Your task to perform on an android device: Turn on the flashlight Image 0: 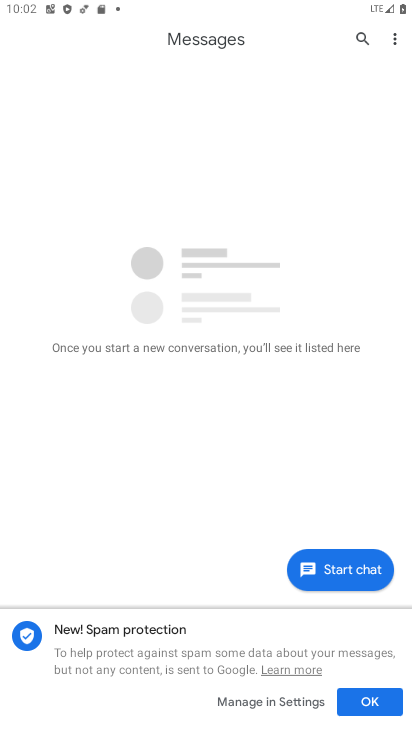
Step 0: press home button
Your task to perform on an android device: Turn on the flashlight Image 1: 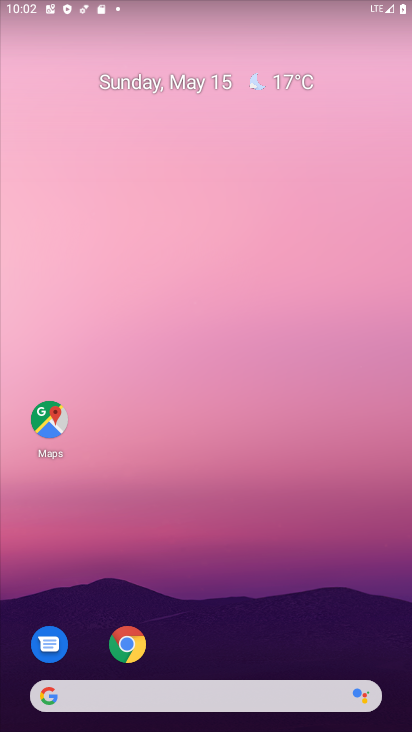
Step 1: drag from (283, 624) to (276, 87)
Your task to perform on an android device: Turn on the flashlight Image 2: 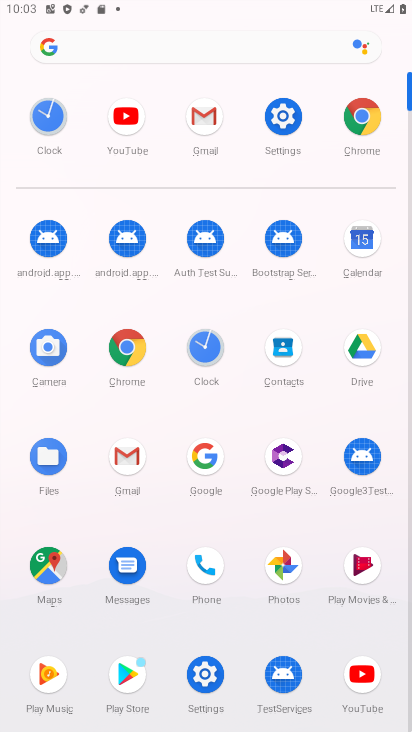
Step 2: click (284, 132)
Your task to perform on an android device: Turn on the flashlight Image 3: 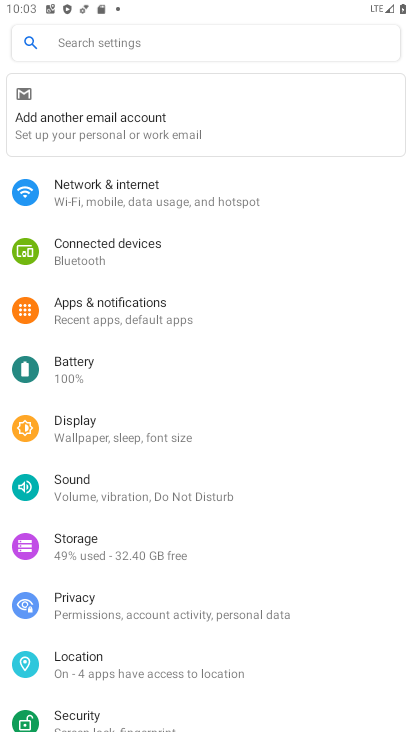
Step 3: click (122, 37)
Your task to perform on an android device: Turn on the flashlight Image 4: 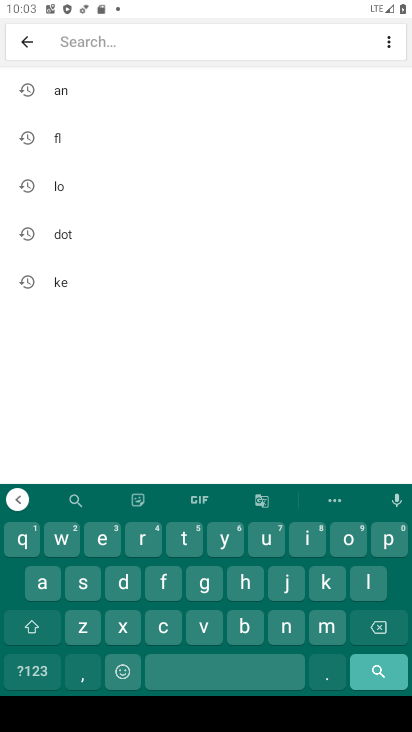
Step 4: click (154, 586)
Your task to perform on an android device: Turn on the flashlight Image 5: 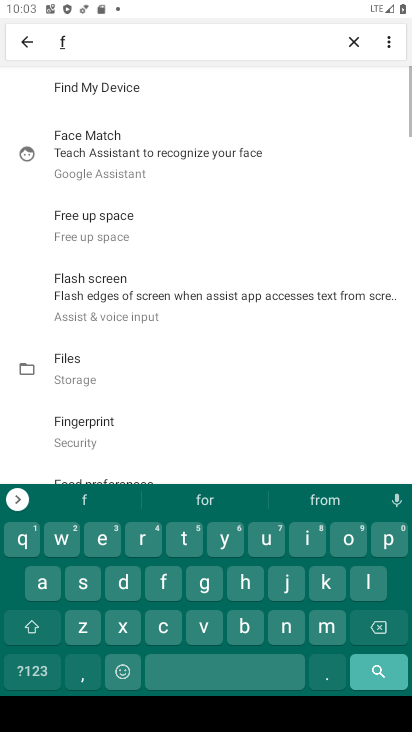
Step 5: click (368, 583)
Your task to perform on an android device: Turn on the flashlight Image 6: 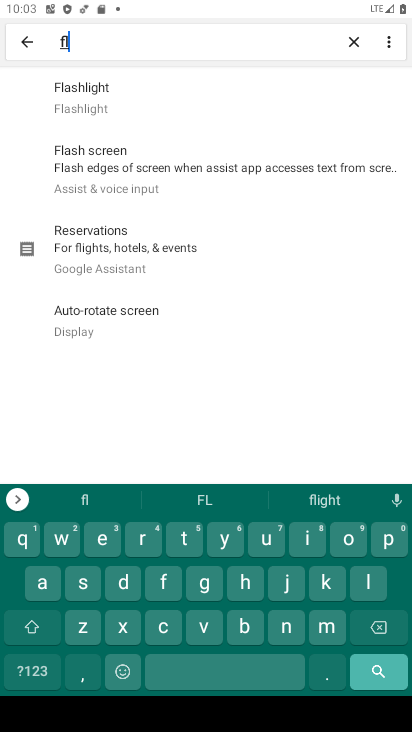
Step 6: click (130, 87)
Your task to perform on an android device: Turn on the flashlight Image 7: 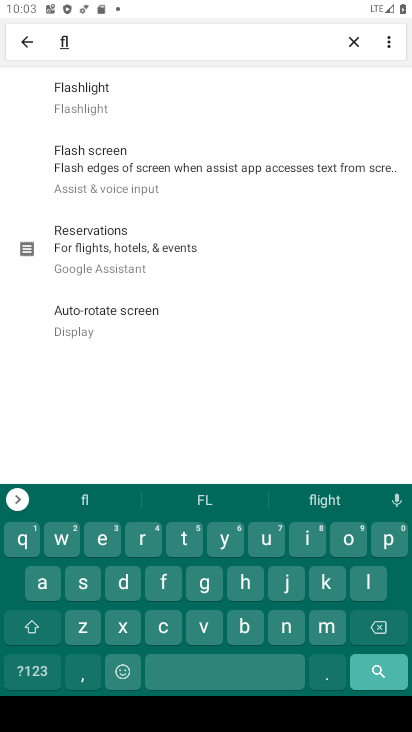
Step 7: click (109, 117)
Your task to perform on an android device: Turn on the flashlight Image 8: 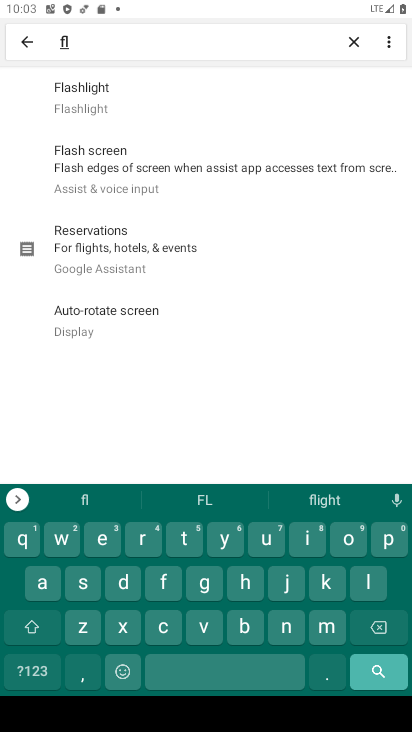
Step 8: task complete